Your task to perform on an android device: Open Chrome and go to the settings page Image 0: 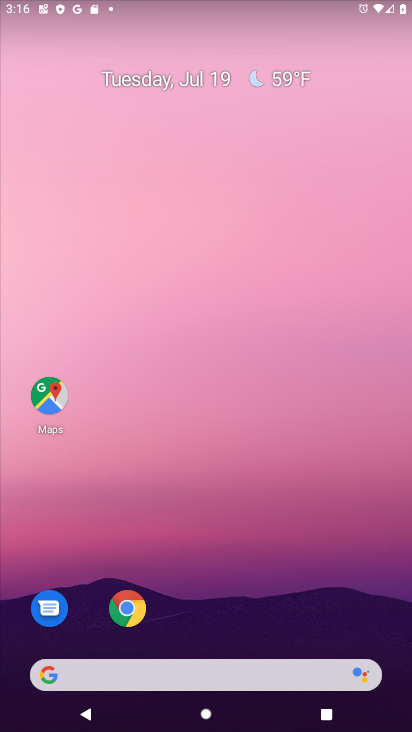
Step 0: drag from (342, 611) to (318, 186)
Your task to perform on an android device: Open Chrome and go to the settings page Image 1: 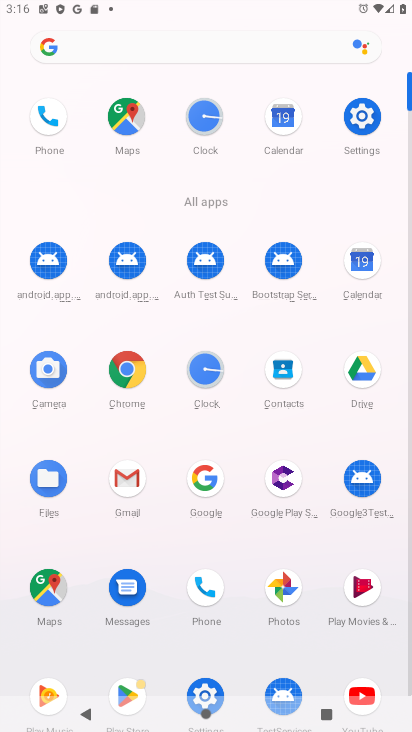
Step 1: click (131, 369)
Your task to perform on an android device: Open Chrome and go to the settings page Image 2: 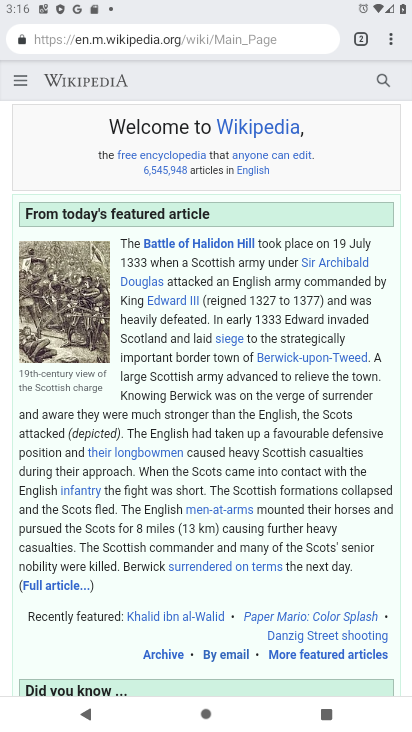
Step 2: click (386, 45)
Your task to perform on an android device: Open Chrome and go to the settings page Image 3: 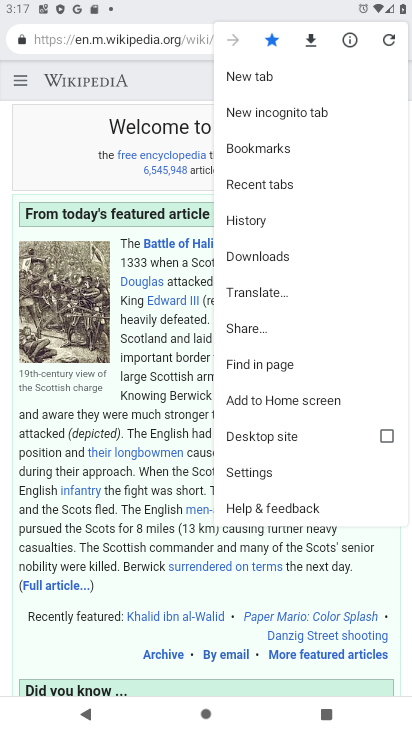
Step 3: click (244, 471)
Your task to perform on an android device: Open Chrome and go to the settings page Image 4: 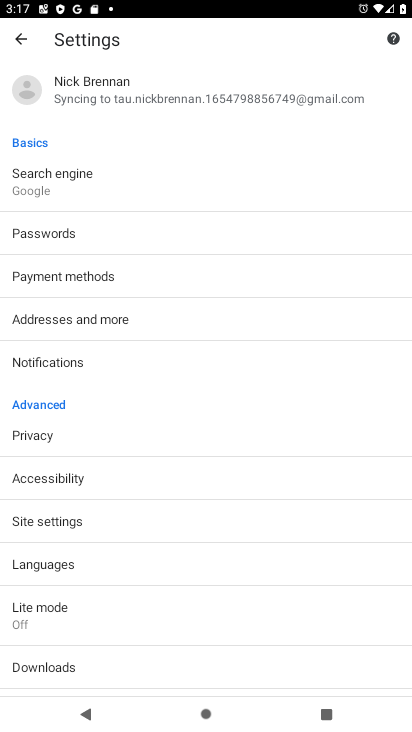
Step 4: task complete